Your task to perform on an android device: turn on javascript in the chrome app Image 0: 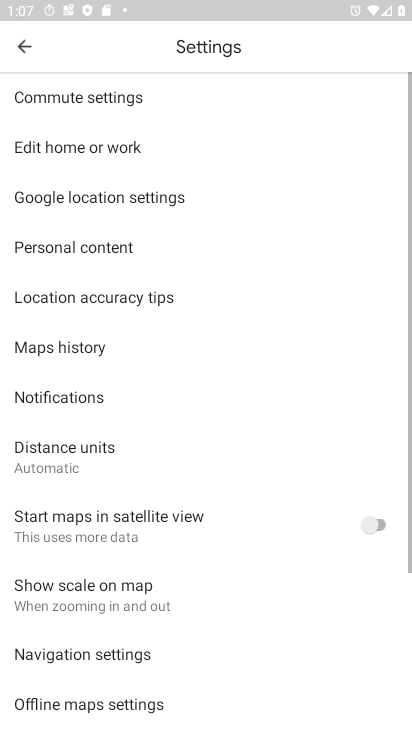
Step 0: press home button
Your task to perform on an android device: turn on javascript in the chrome app Image 1: 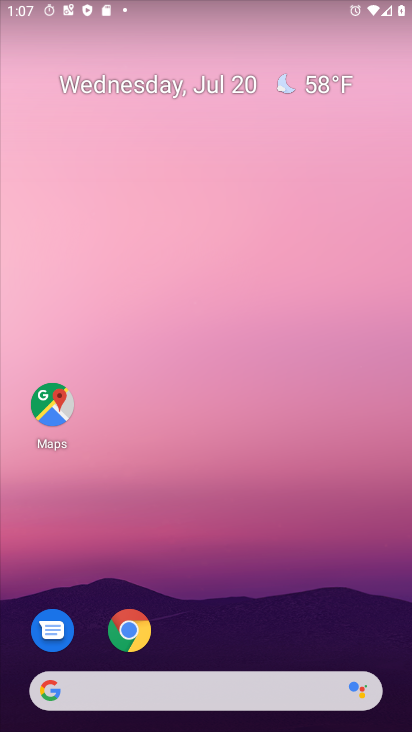
Step 1: click (126, 632)
Your task to perform on an android device: turn on javascript in the chrome app Image 2: 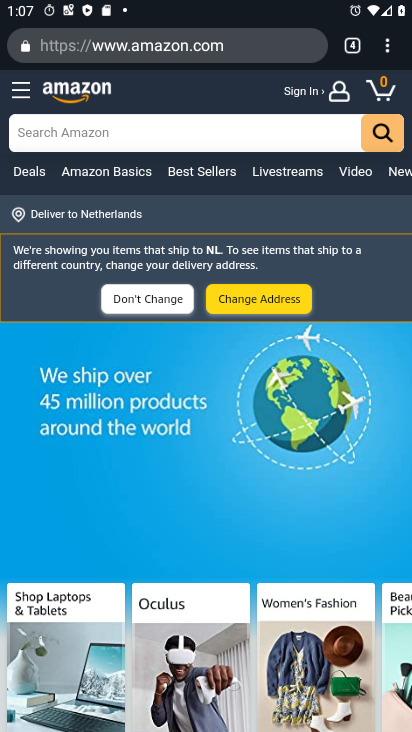
Step 2: drag from (386, 46) to (225, 545)
Your task to perform on an android device: turn on javascript in the chrome app Image 3: 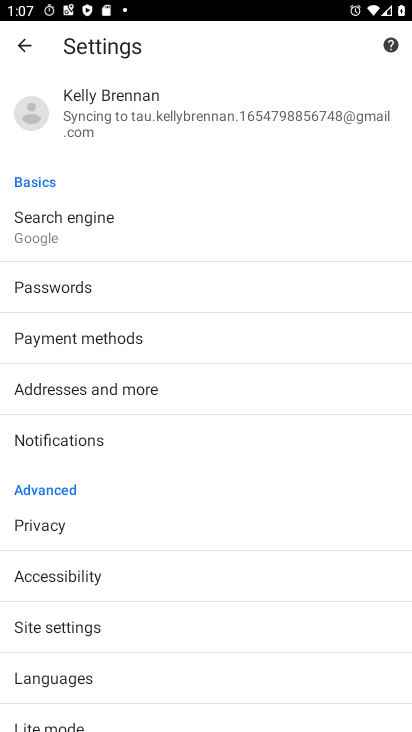
Step 3: drag from (201, 583) to (273, 142)
Your task to perform on an android device: turn on javascript in the chrome app Image 4: 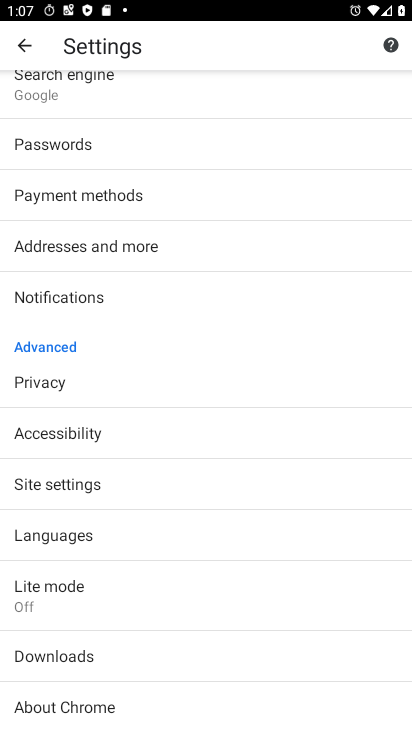
Step 4: click (87, 480)
Your task to perform on an android device: turn on javascript in the chrome app Image 5: 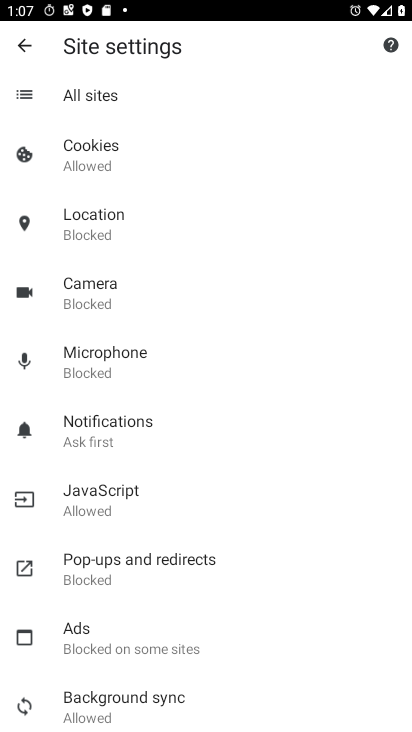
Step 5: click (111, 497)
Your task to perform on an android device: turn on javascript in the chrome app Image 6: 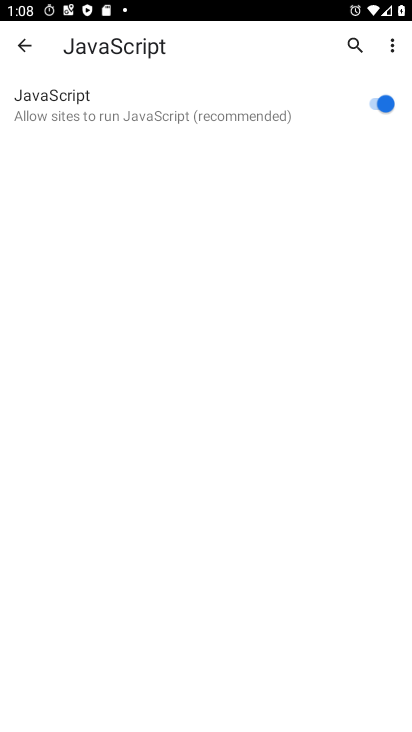
Step 6: task complete